Your task to perform on an android device: Go to Reddit.com Image 0: 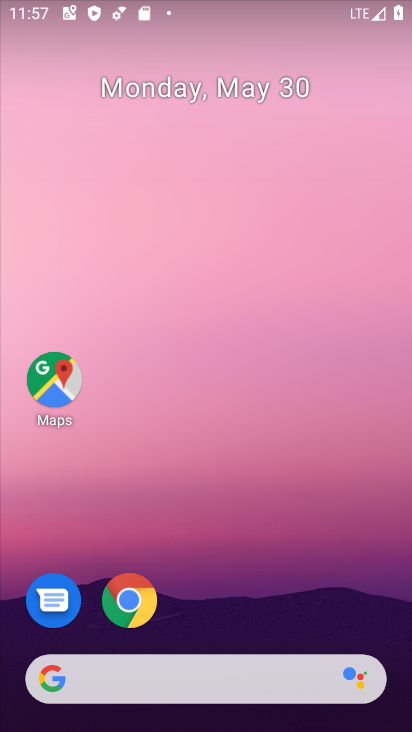
Step 0: click (134, 602)
Your task to perform on an android device: Go to Reddit.com Image 1: 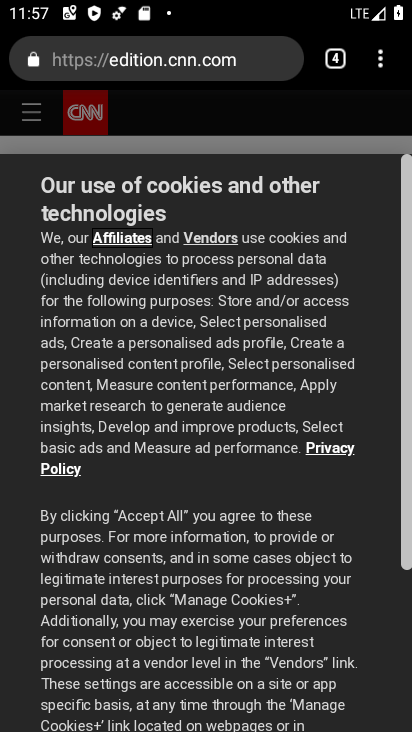
Step 1: click (384, 66)
Your task to perform on an android device: Go to Reddit.com Image 2: 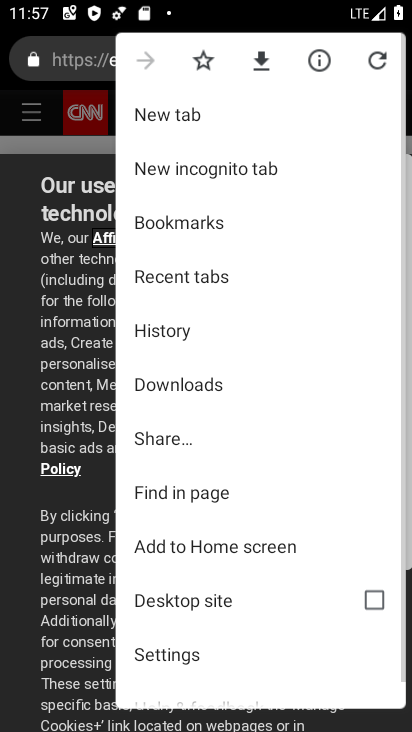
Step 2: click (160, 115)
Your task to perform on an android device: Go to Reddit.com Image 3: 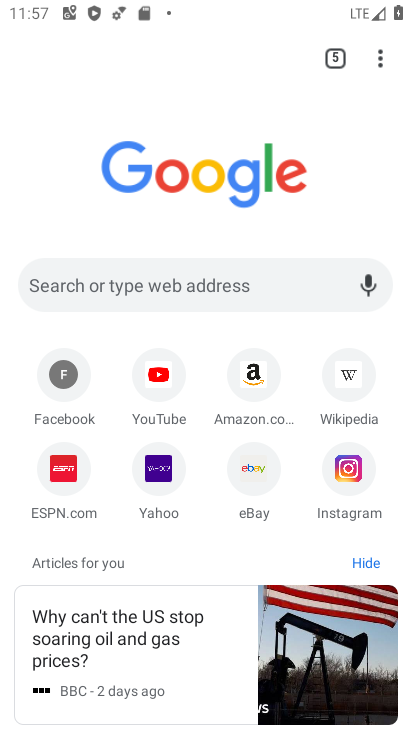
Step 3: click (209, 288)
Your task to perform on an android device: Go to Reddit.com Image 4: 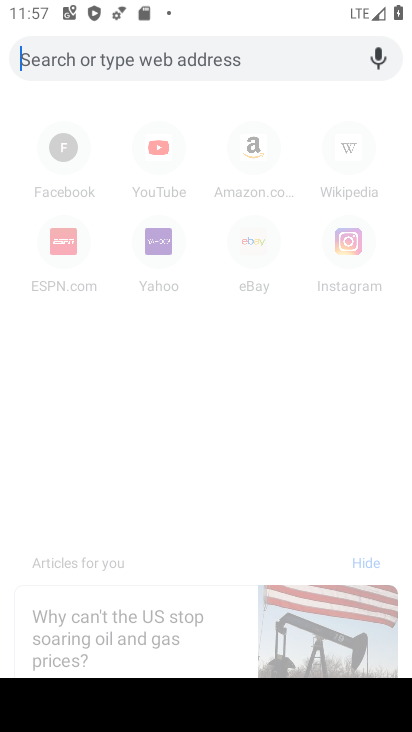
Step 4: type "Reddit.com"
Your task to perform on an android device: Go to Reddit.com Image 5: 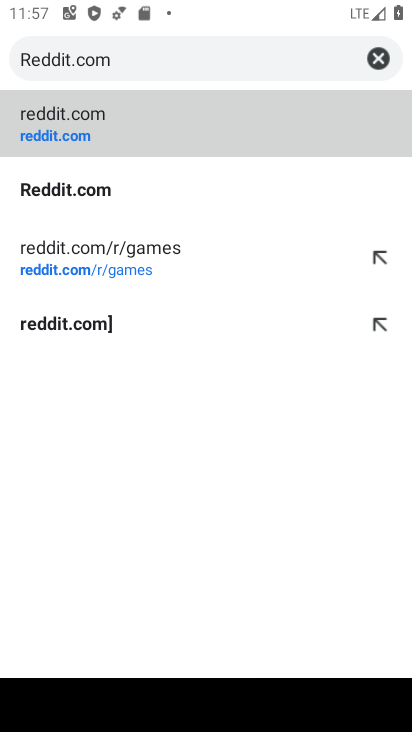
Step 5: click (87, 124)
Your task to perform on an android device: Go to Reddit.com Image 6: 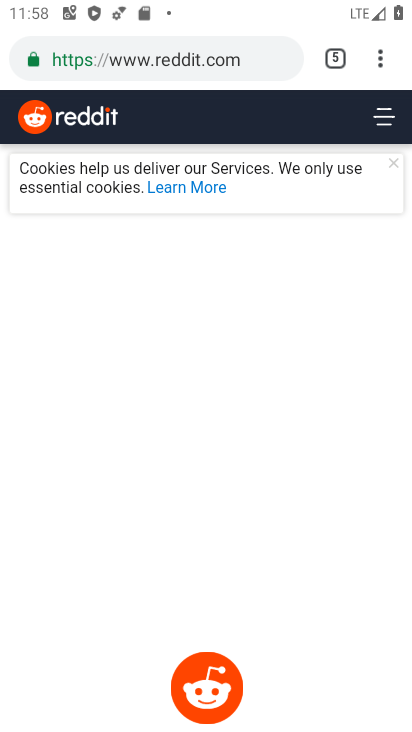
Step 6: task complete